Your task to perform on an android device: Add "usb-c to usb-b" to the cart on target.com Image 0: 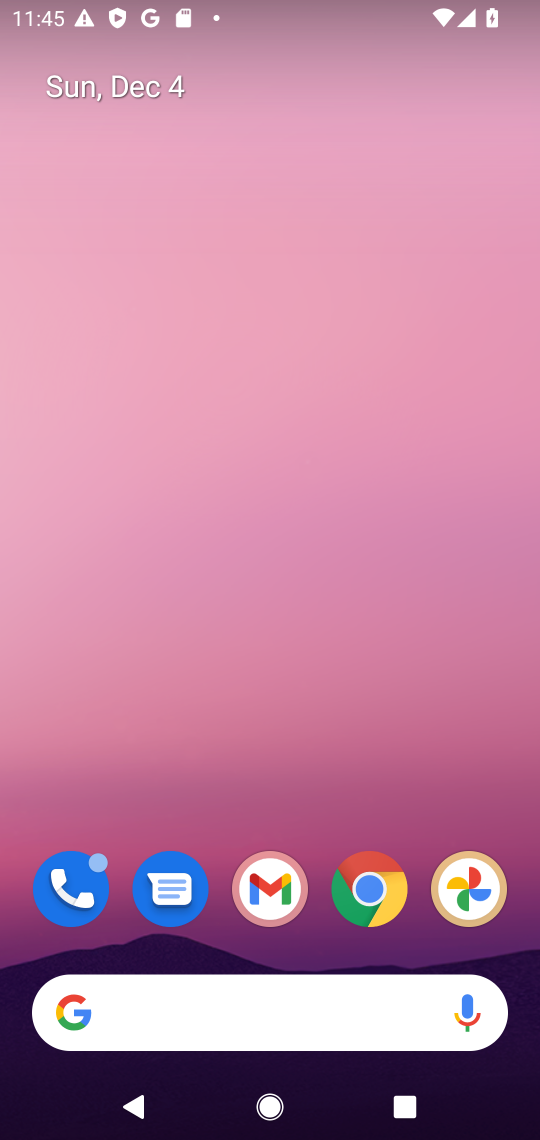
Step 0: click (380, 881)
Your task to perform on an android device: Add "usb-c to usb-b" to the cart on target.com Image 1: 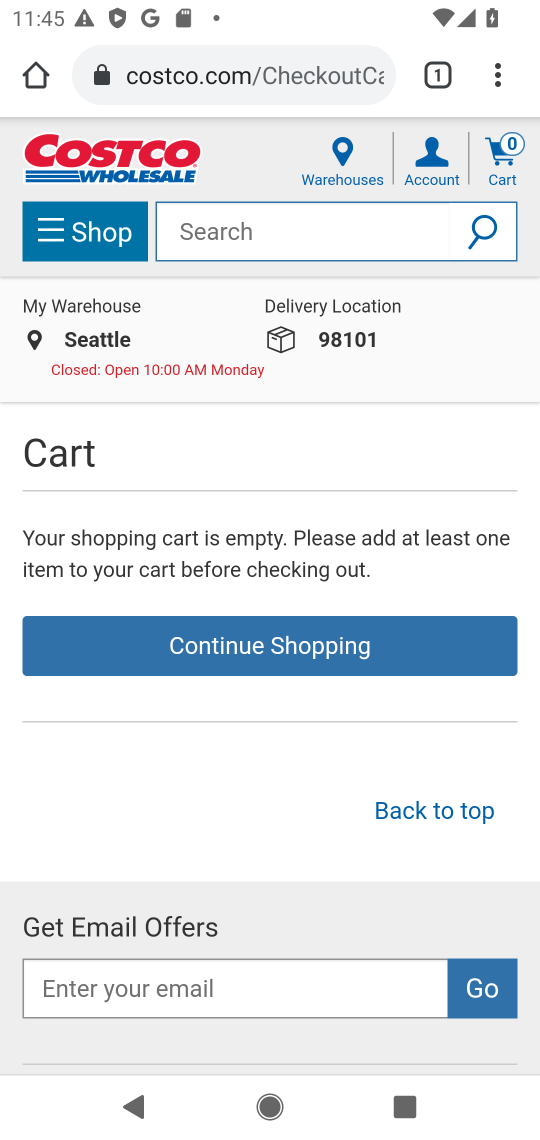
Step 1: click (321, 69)
Your task to perform on an android device: Add "usb-c to usb-b" to the cart on target.com Image 2: 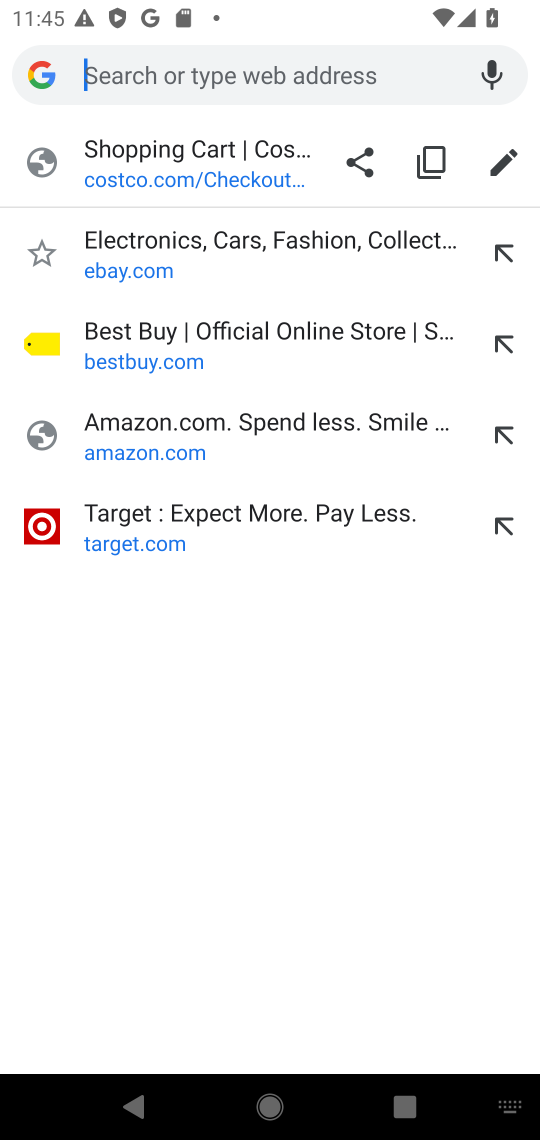
Step 2: click (280, 514)
Your task to perform on an android device: Add "usb-c to usb-b" to the cart on target.com Image 3: 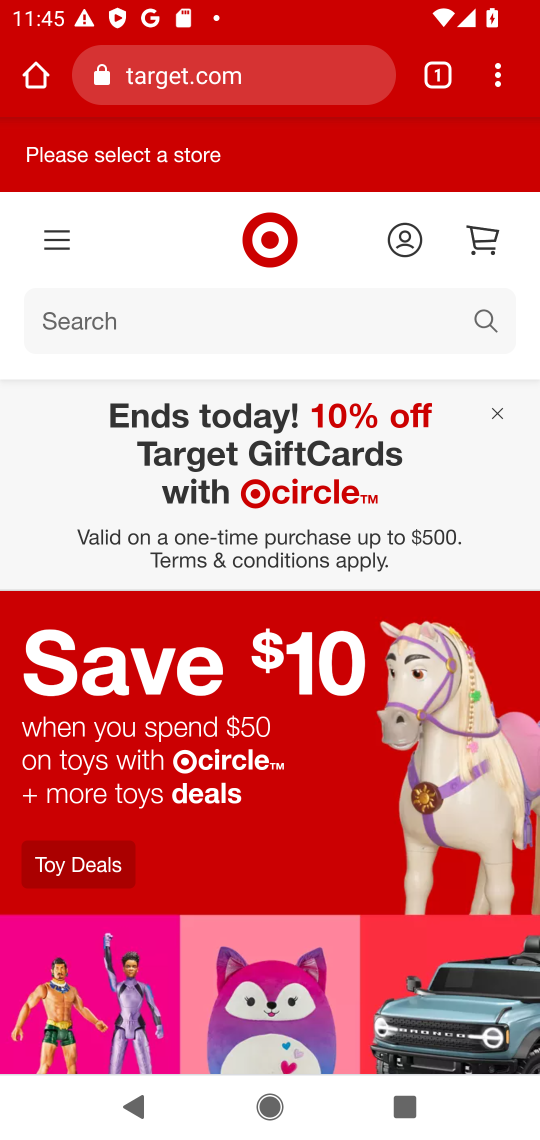
Step 3: click (479, 320)
Your task to perform on an android device: Add "usb-c to usb-b" to the cart on target.com Image 4: 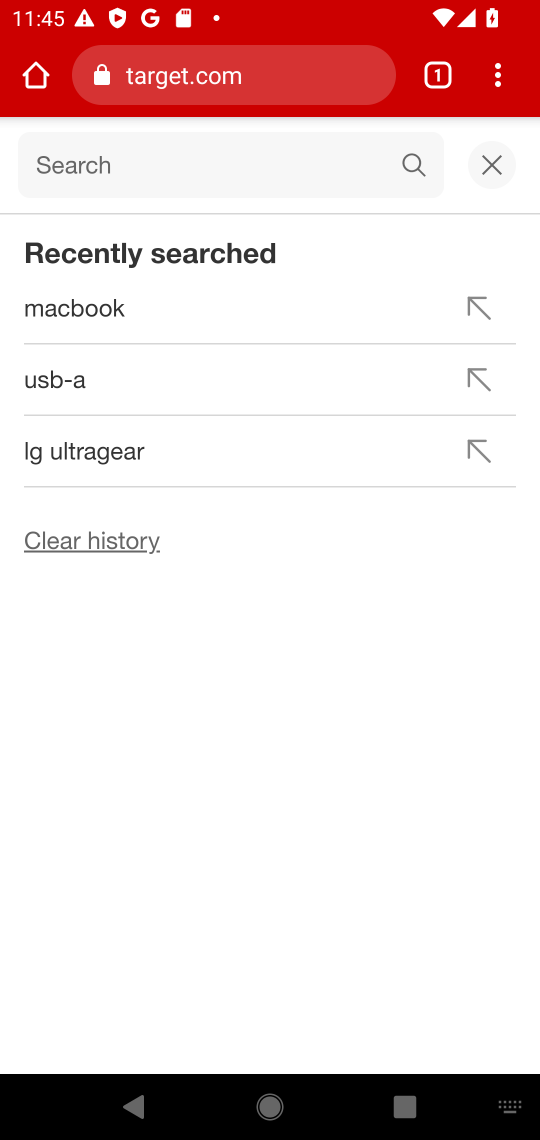
Step 4: type "usb-c to usb-b"
Your task to perform on an android device: Add "usb-c to usb-b" to the cart on target.com Image 5: 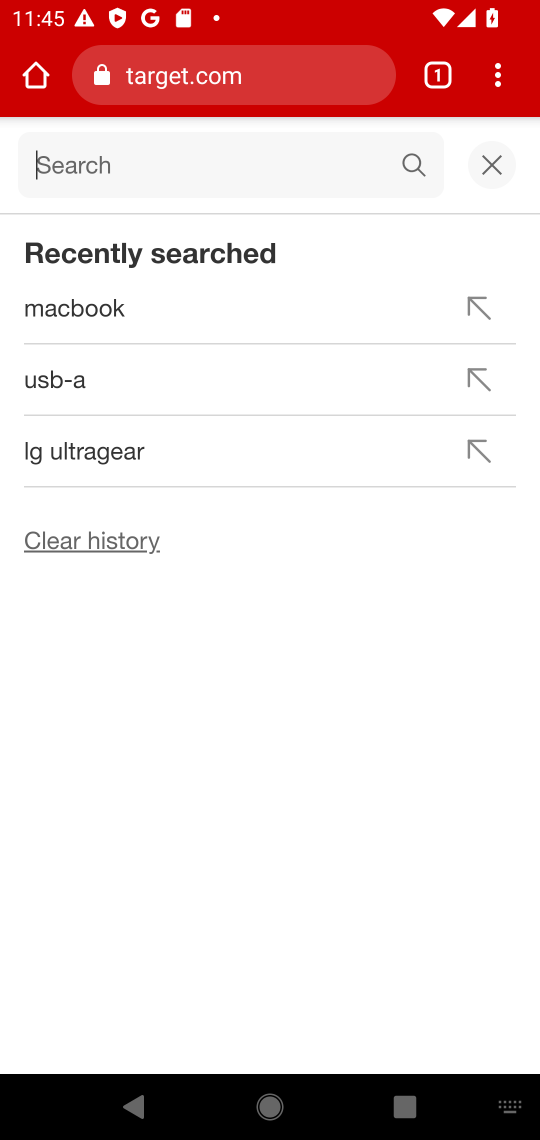
Step 5: press enter
Your task to perform on an android device: Add "usb-c to usb-b" to the cart on target.com Image 6: 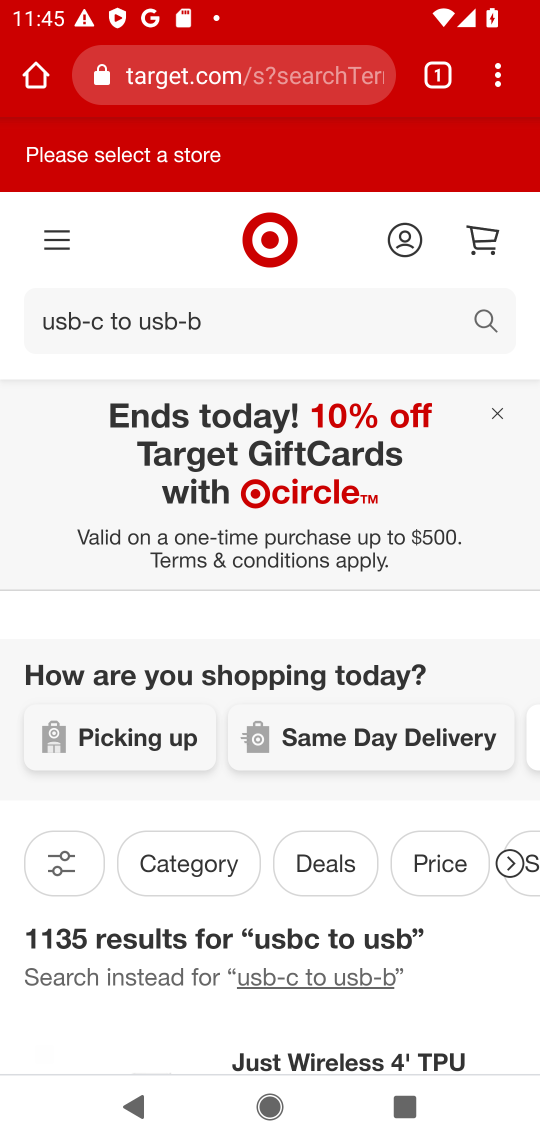
Step 6: task complete